Your task to perform on an android device: make emails show in primary in the gmail app Image 0: 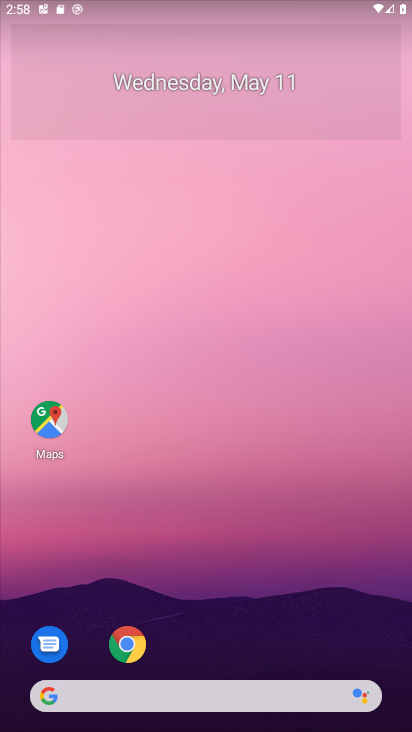
Step 0: drag from (198, 666) to (185, 44)
Your task to perform on an android device: make emails show in primary in the gmail app Image 1: 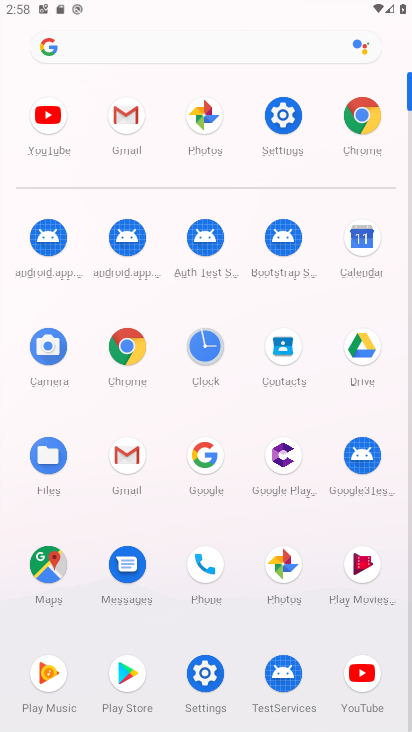
Step 1: click (127, 467)
Your task to perform on an android device: make emails show in primary in the gmail app Image 2: 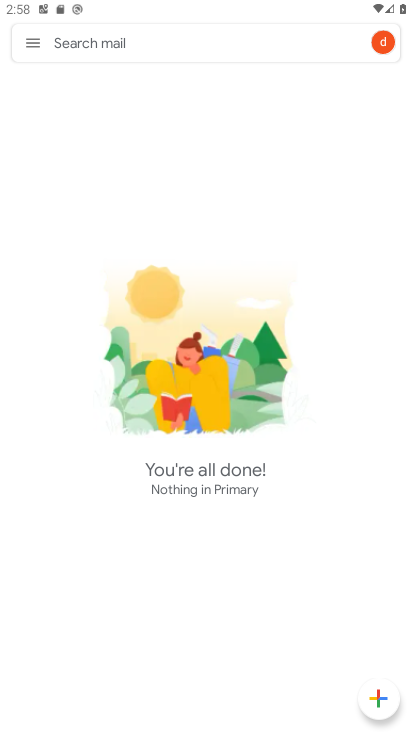
Step 2: click (24, 42)
Your task to perform on an android device: make emails show in primary in the gmail app Image 3: 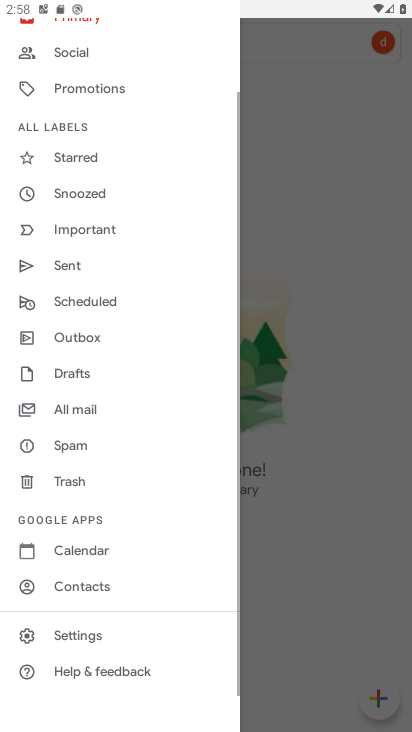
Step 3: drag from (70, 85) to (87, 484)
Your task to perform on an android device: make emails show in primary in the gmail app Image 4: 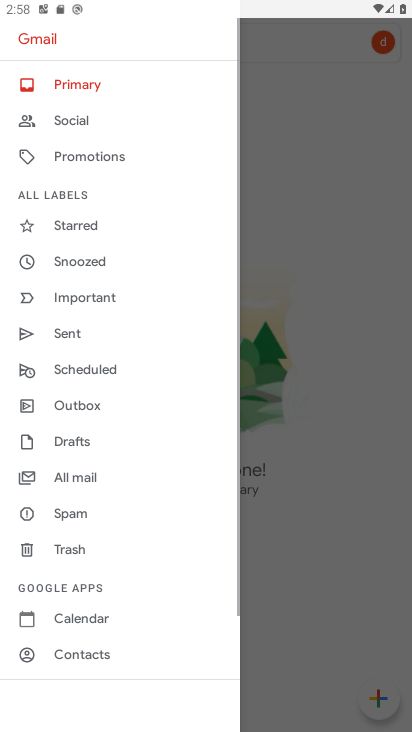
Step 4: click (60, 78)
Your task to perform on an android device: make emails show in primary in the gmail app Image 5: 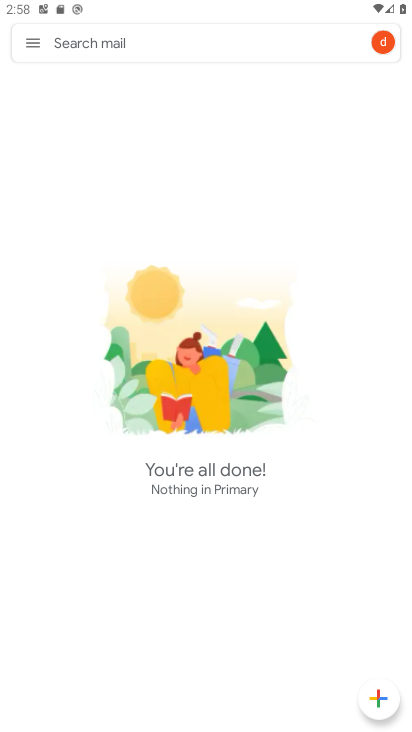
Step 5: task complete